Your task to perform on an android device: Show me productivity apps on the Play Store Image 0: 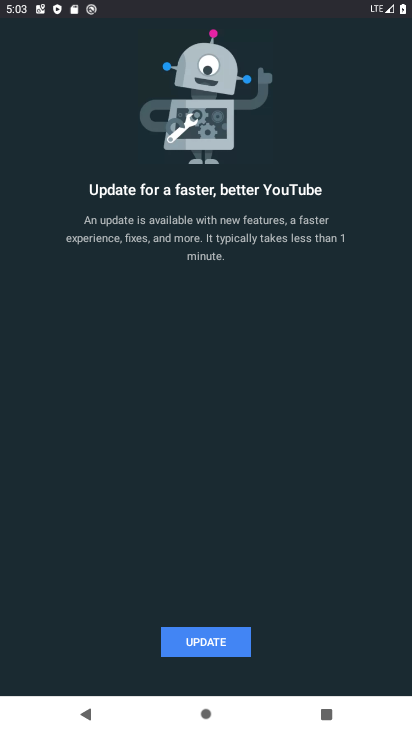
Step 0: press home button
Your task to perform on an android device: Show me productivity apps on the Play Store Image 1: 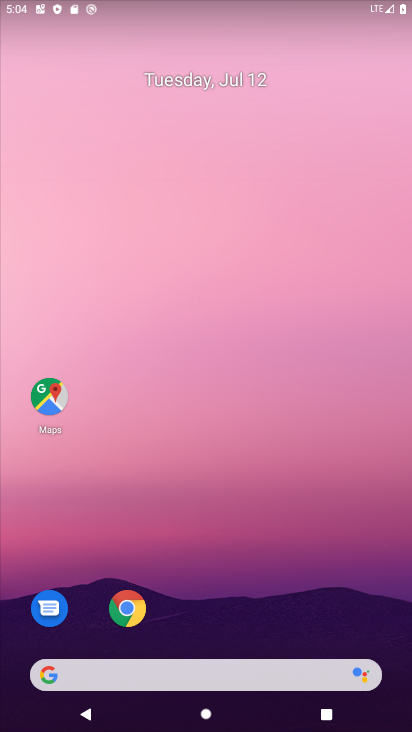
Step 1: drag from (175, 647) to (194, 64)
Your task to perform on an android device: Show me productivity apps on the Play Store Image 2: 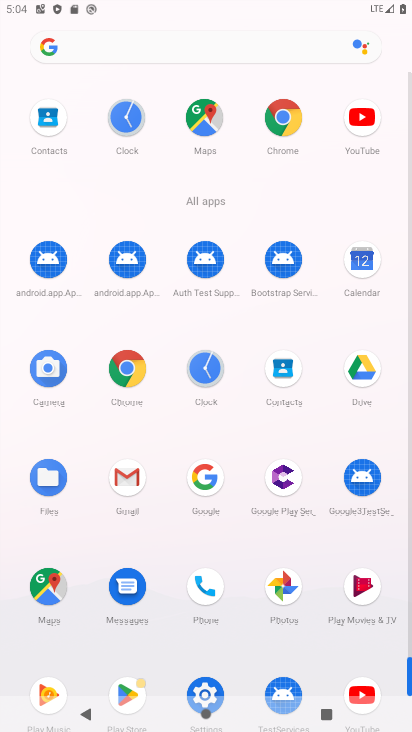
Step 2: click (117, 684)
Your task to perform on an android device: Show me productivity apps on the Play Store Image 3: 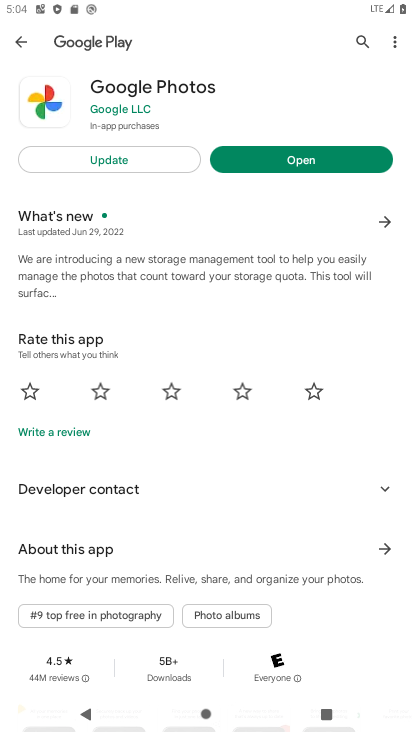
Step 3: click (27, 39)
Your task to perform on an android device: Show me productivity apps on the Play Store Image 4: 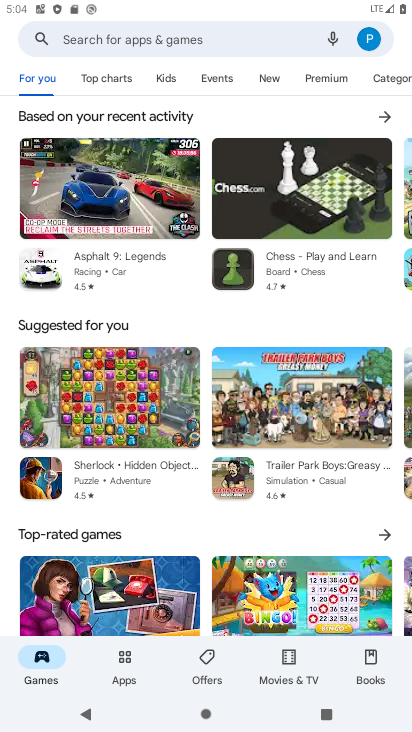
Step 4: click (127, 659)
Your task to perform on an android device: Show me productivity apps on the Play Store Image 5: 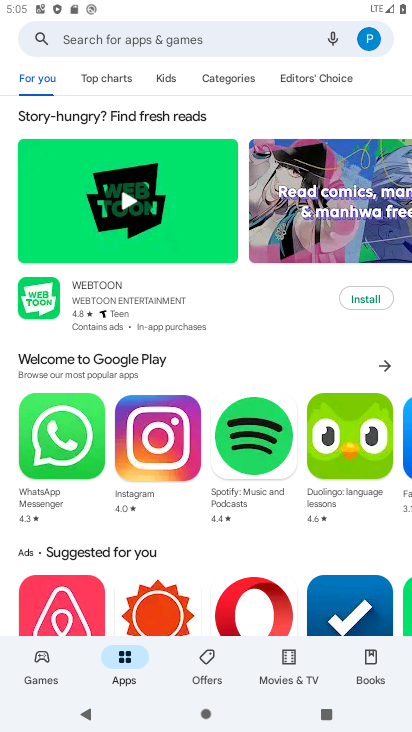
Step 5: click (122, 71)
Your task to perform on an android device: Show me productivity apps on the Play Store Image 6: 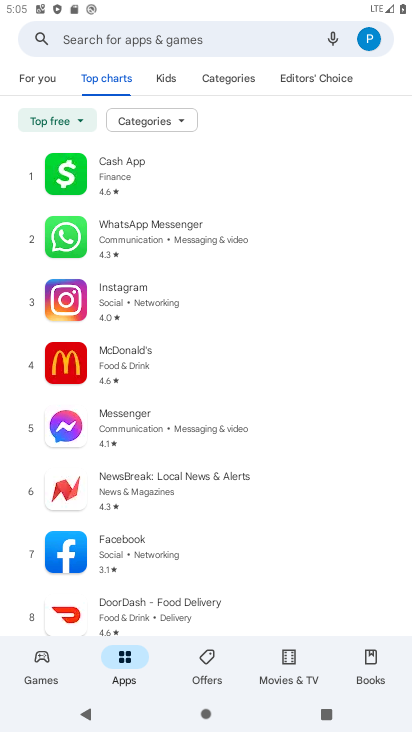
Step 6: task complete